Your task to perform on an android device: Search for pizza restaurants on Maps Image 0: 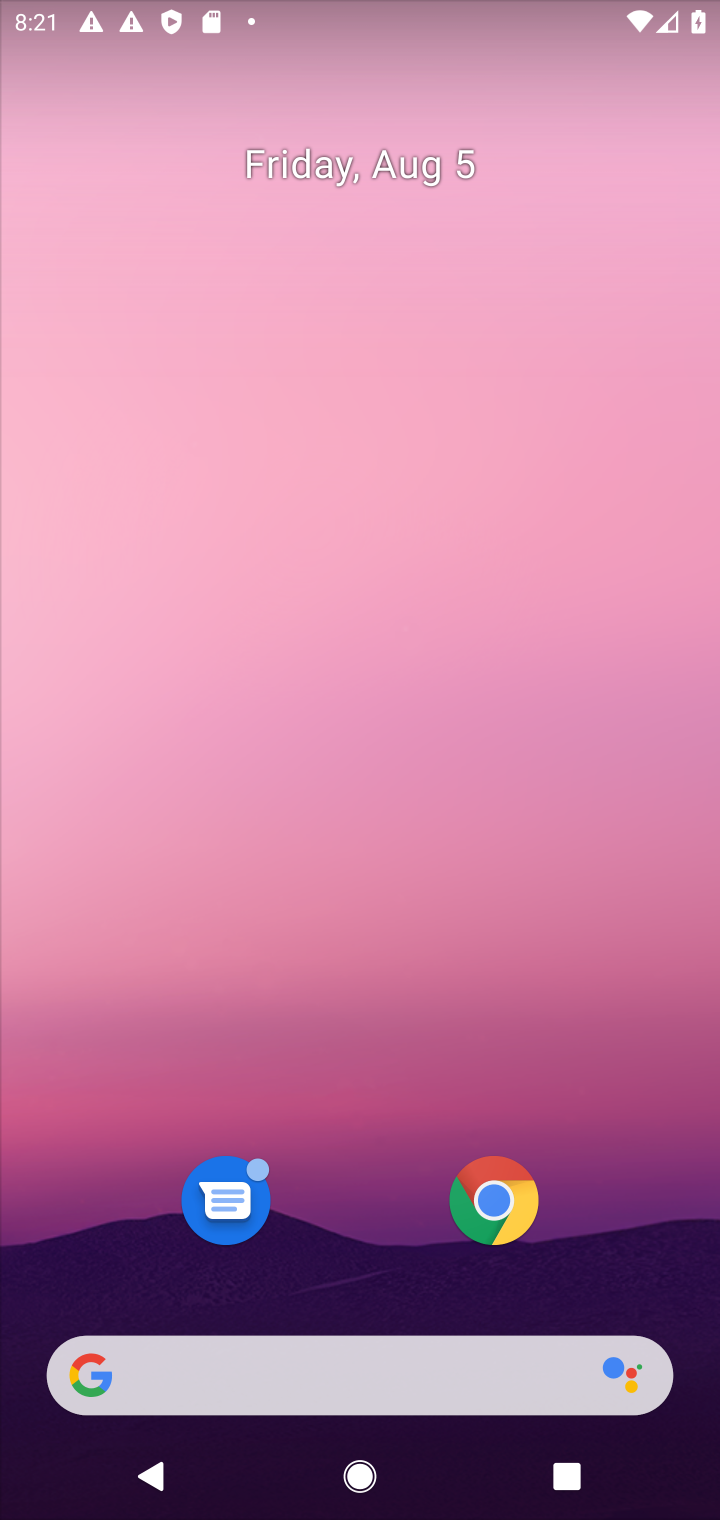
Step 0: drag from (356, 1308) to (489, 326)
Your task to perform on an android device: Search for pizza restaurants on Maps Image 1: 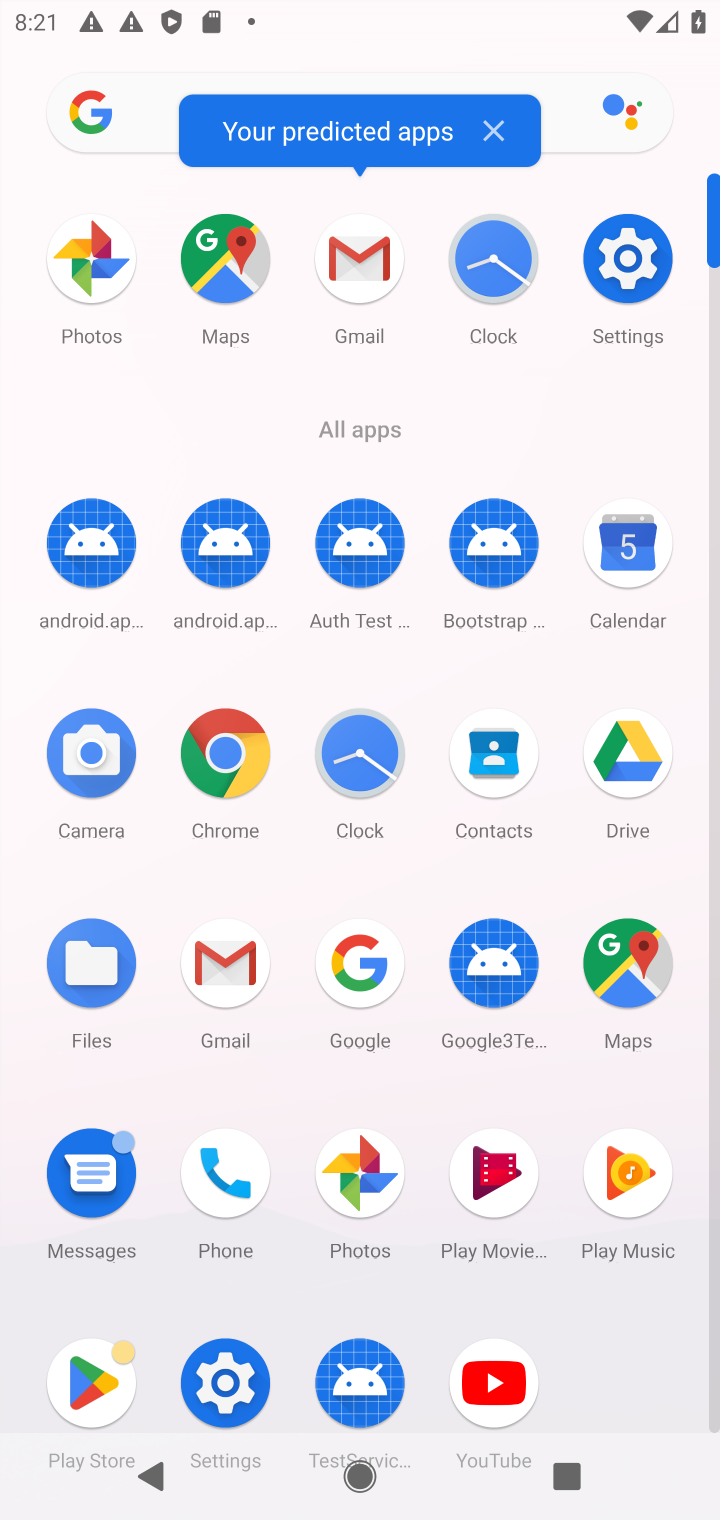
Step 1: click (196, 267)
Your task to perform on an android device: Search for pizza restaurants on Maps Image 2: 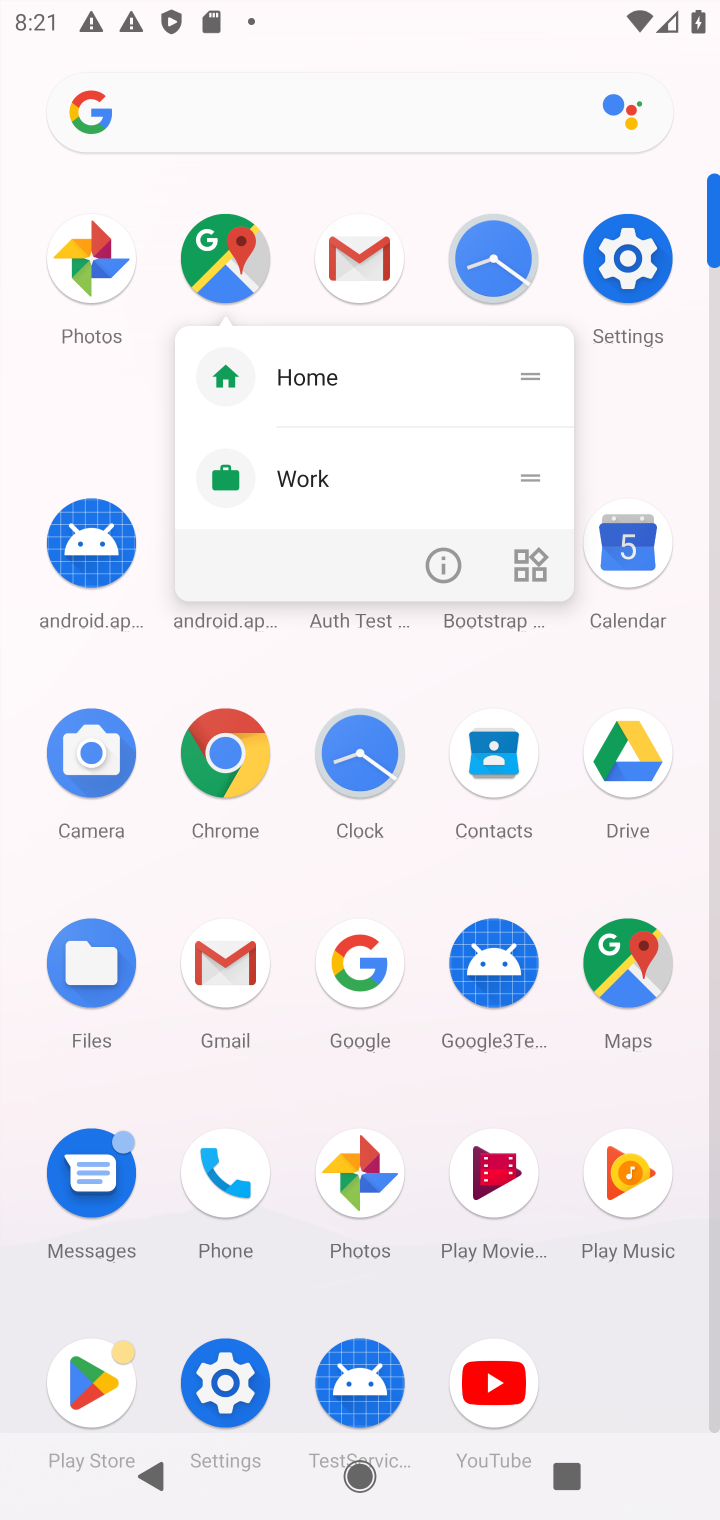
Step 2: click (216, 281)
Your task to perform on an android device: Search for pizza restaurants on Maps Image 3: 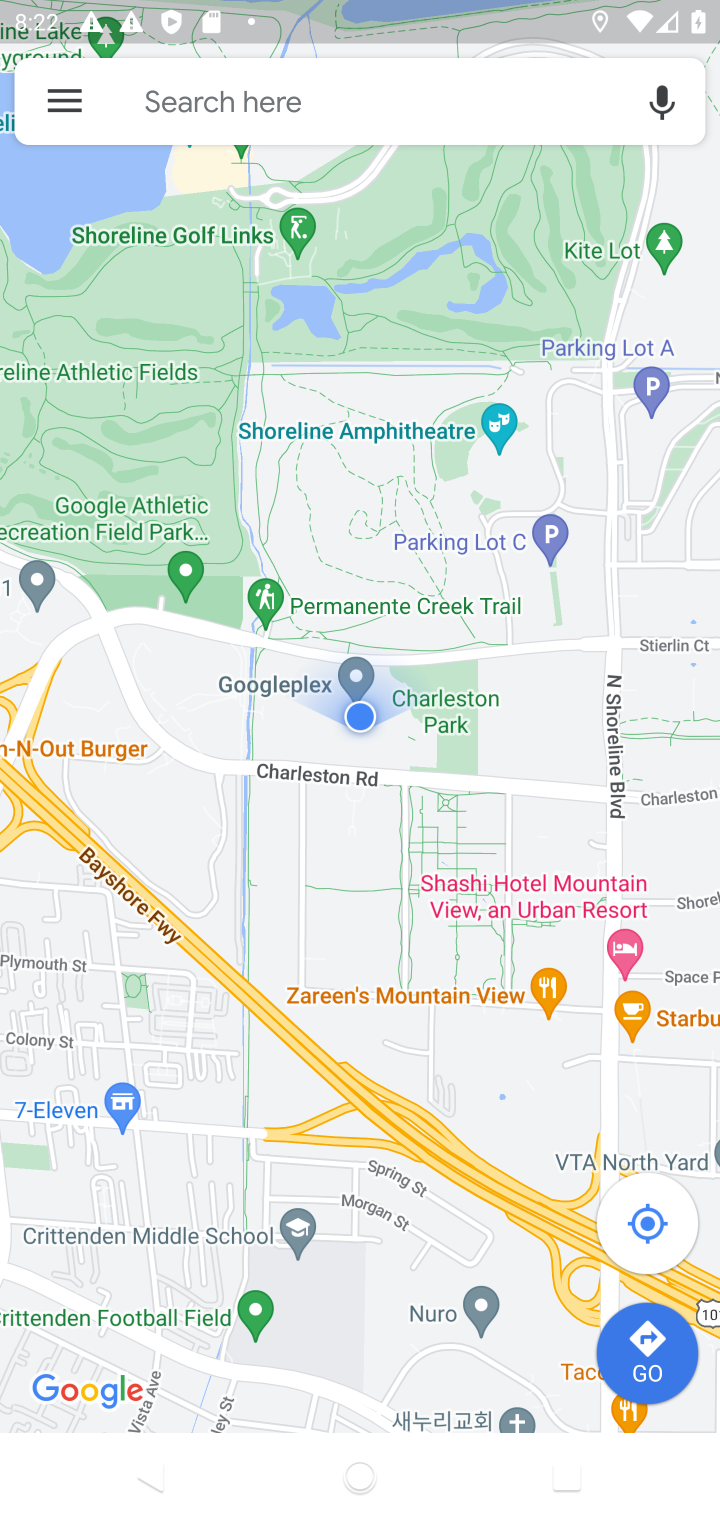
Step 3: click (260, 103)
Your task to perform on an android device: Search for pizza restaurants on Maps Image 4: 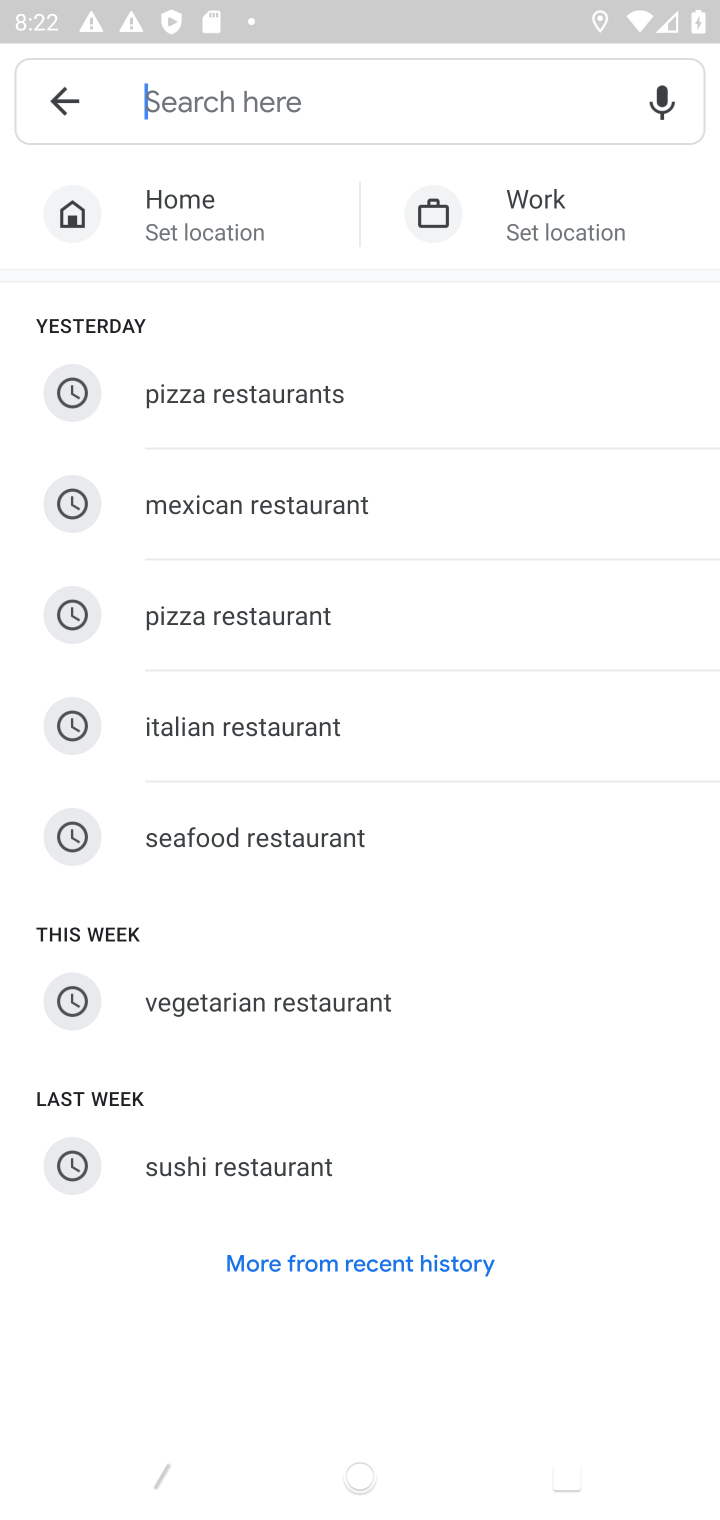
Step 4: click (194, 402)
Your task to perform on an android device: Search for pizza restaurants on Maps Image 5: 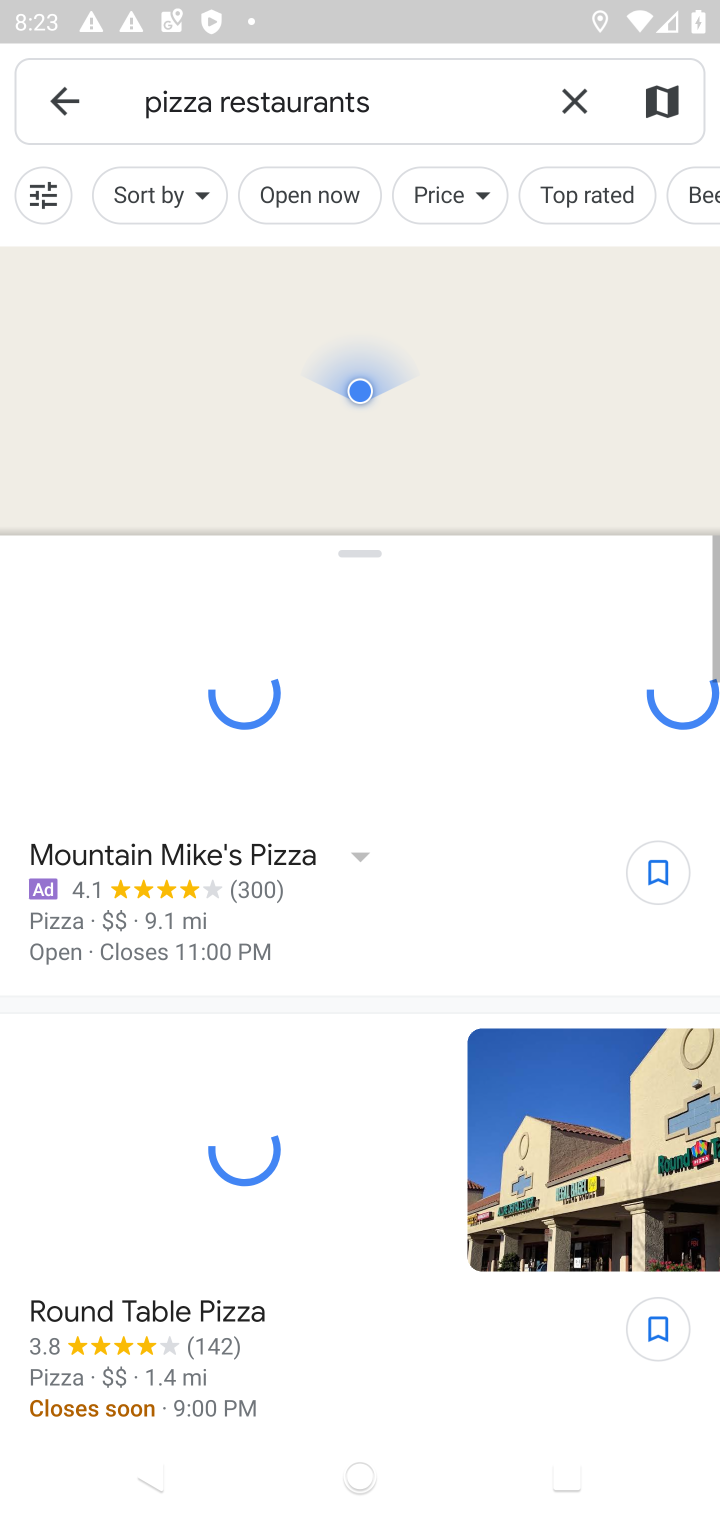
Step 5: task complete